Your task to perform on an android device: uninstall "Reddit" Image 0: 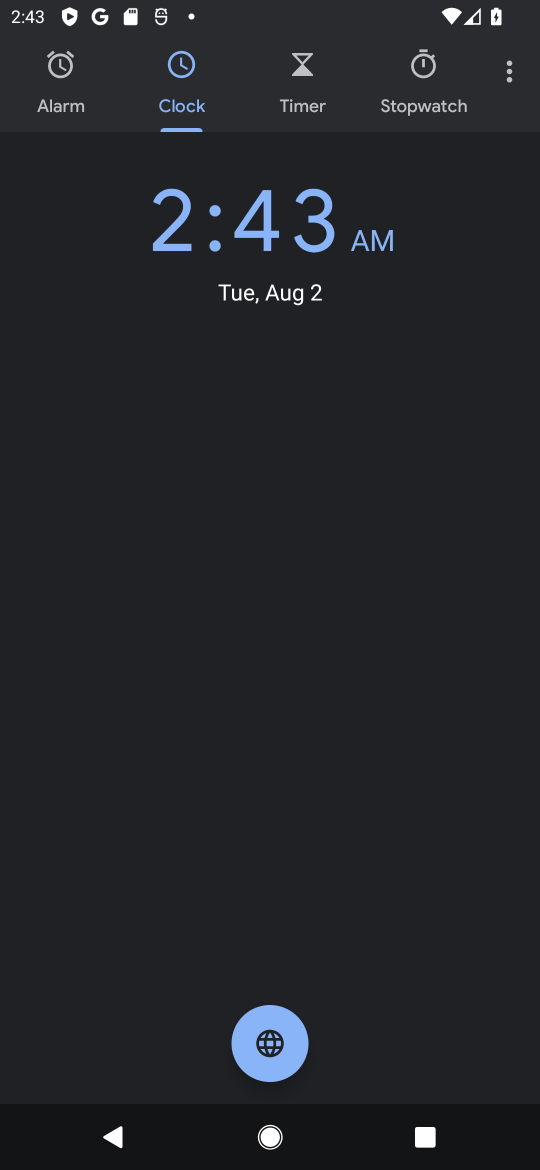
Step 0: press home button
Your task to perform on an android device: uninstall "Reddit" Image 1: 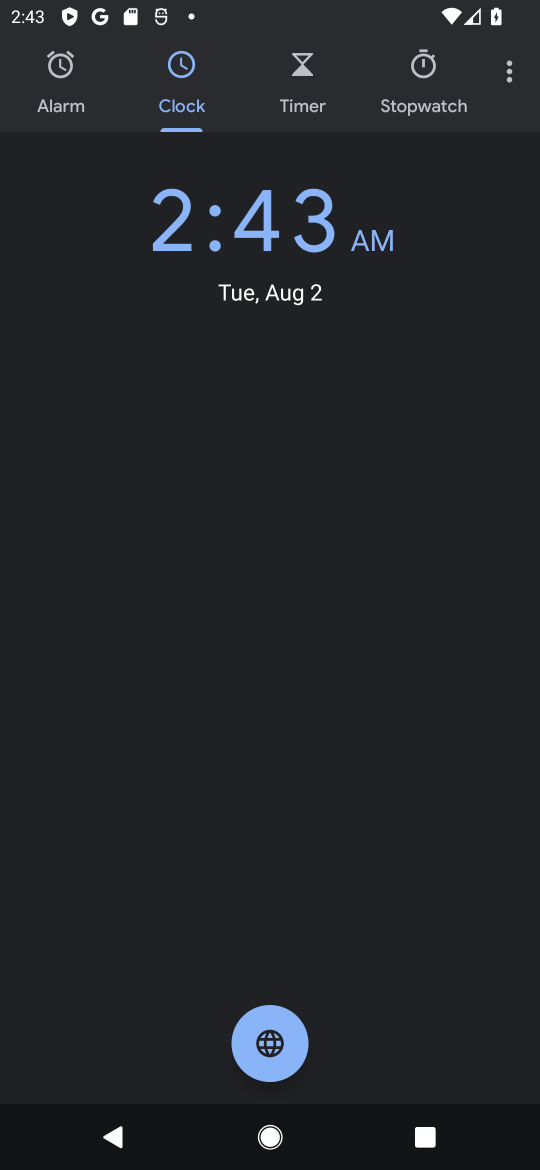
Step 1: press home button
Your task to perform on an android device: uninstall "Reddit" Image 2: 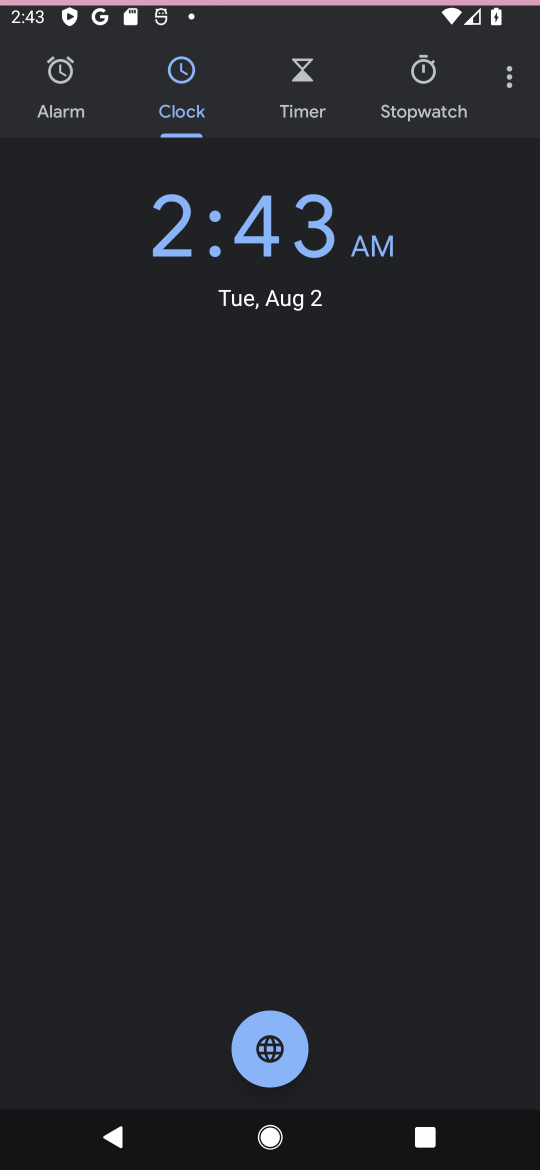
Step 2: drag from (175, 775) to (307, 110)
Your task to perform on an android device: uninstall "Reddit" Image 3: 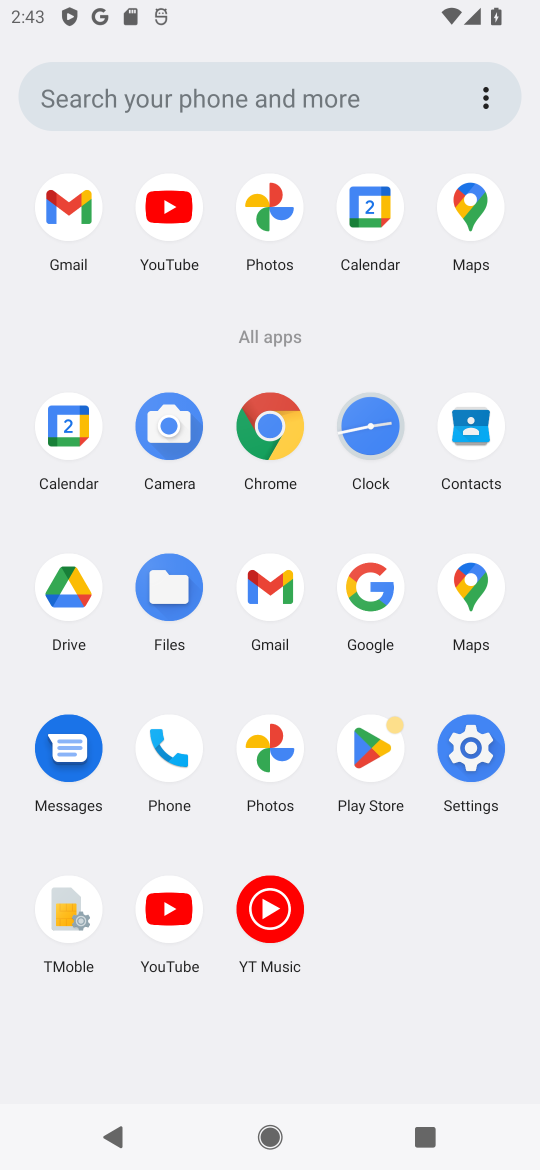
Step 3: click (379, 735)
Your task to perform on an android device: uninstall "Reddit" Image 4: 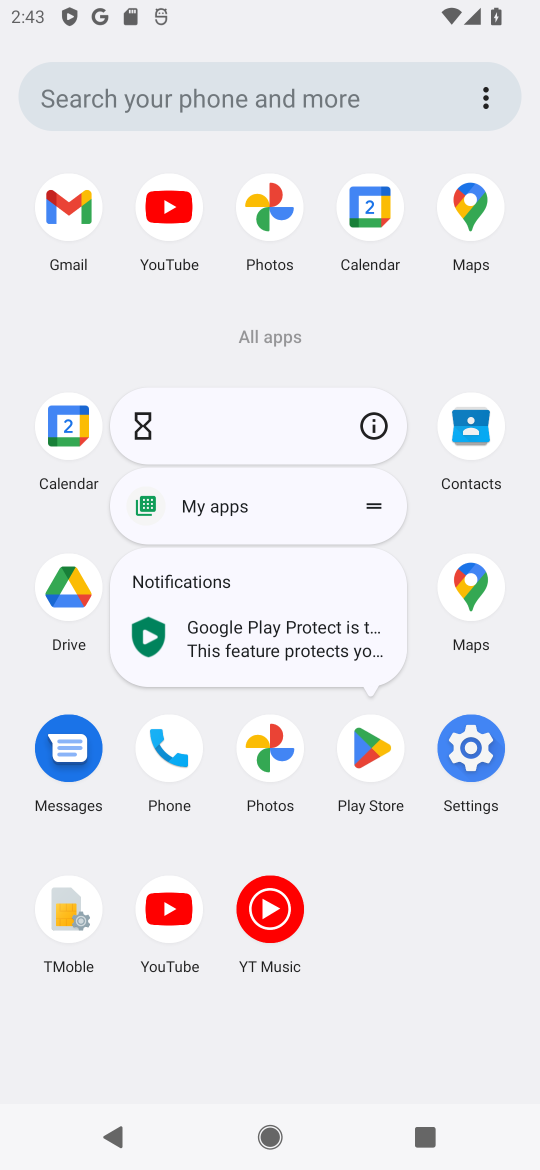
Step 4: click (368, 420)
Your task to perform on an android device: uninstall "Reddit" Image 5: 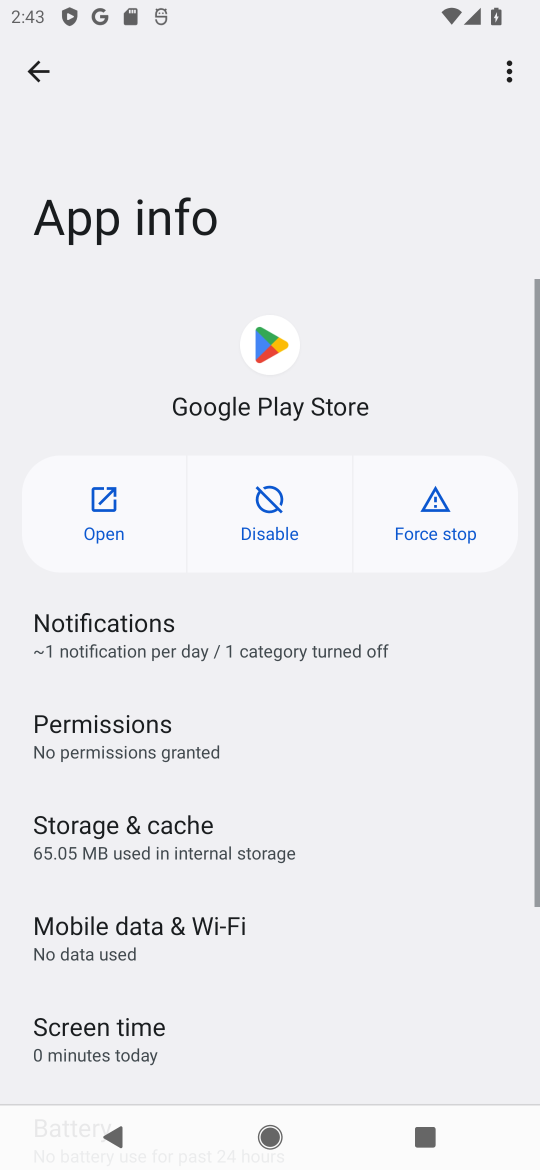
Step 5: click (103, 501)
Your task to perform on an android device: uninstall "Reddit" Image 6: 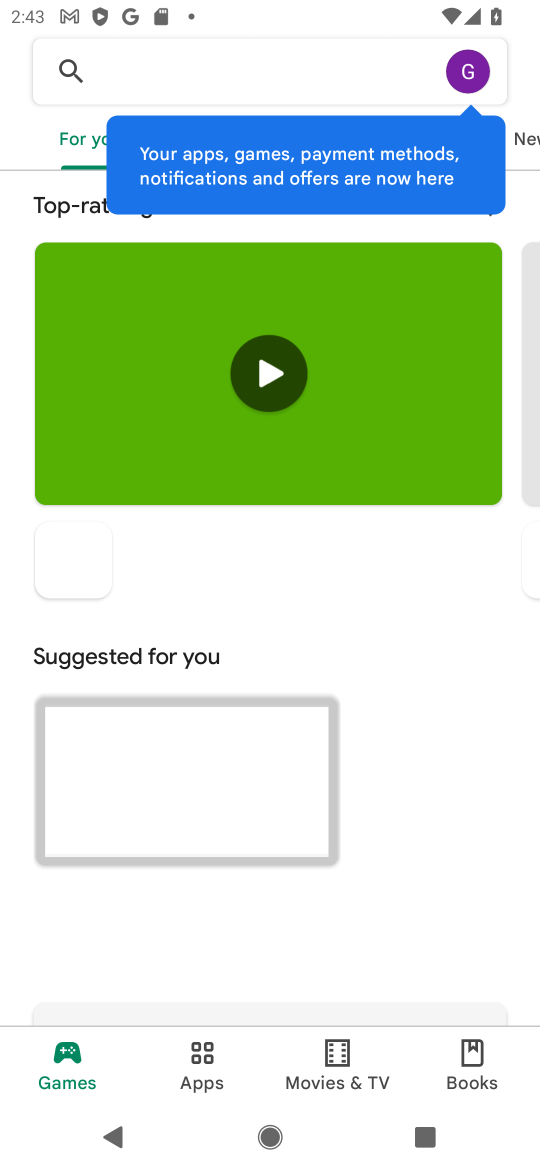
Step 6: click (238, 89)
Your task to perform on an android device: uninstall "Reddit" Image 7: 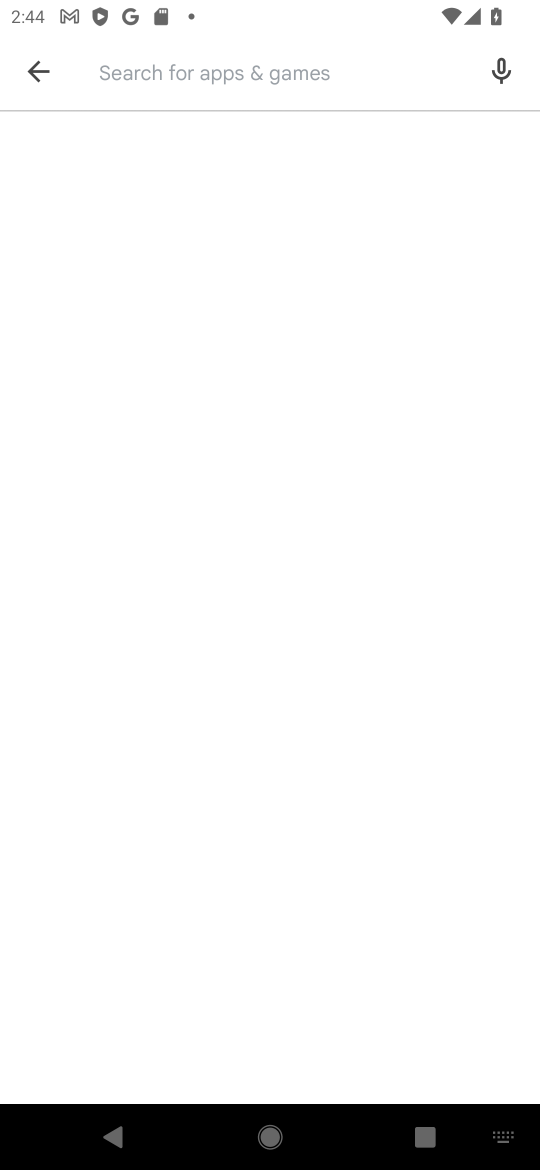
Step 7: type "Reddit"
Your task to perform on an android device: uninstall "Reddit" Image 8: 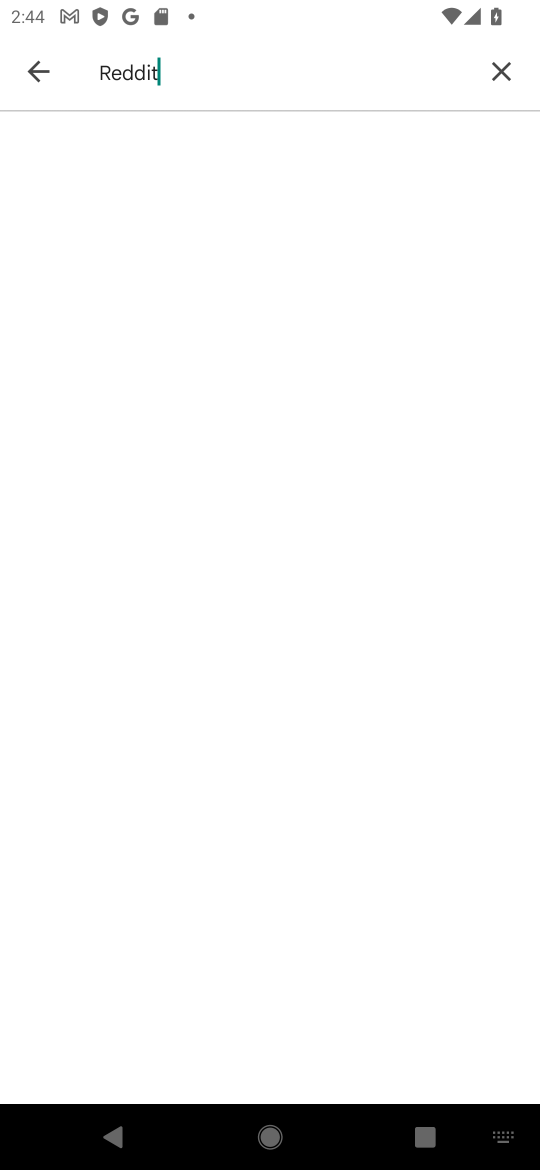
Step 8: type ""
Your task to perform on an android device: uninstall "Reddit" Image 9: 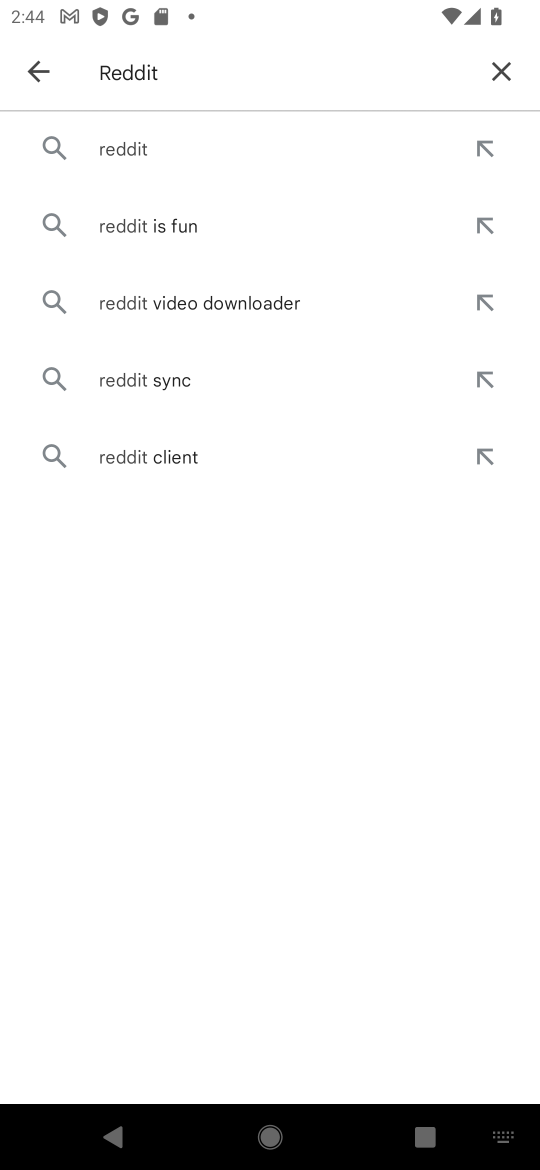
Step 9: click (226, 165)
Your task to perform on an android device: uninstall "Reddit" Image 10: 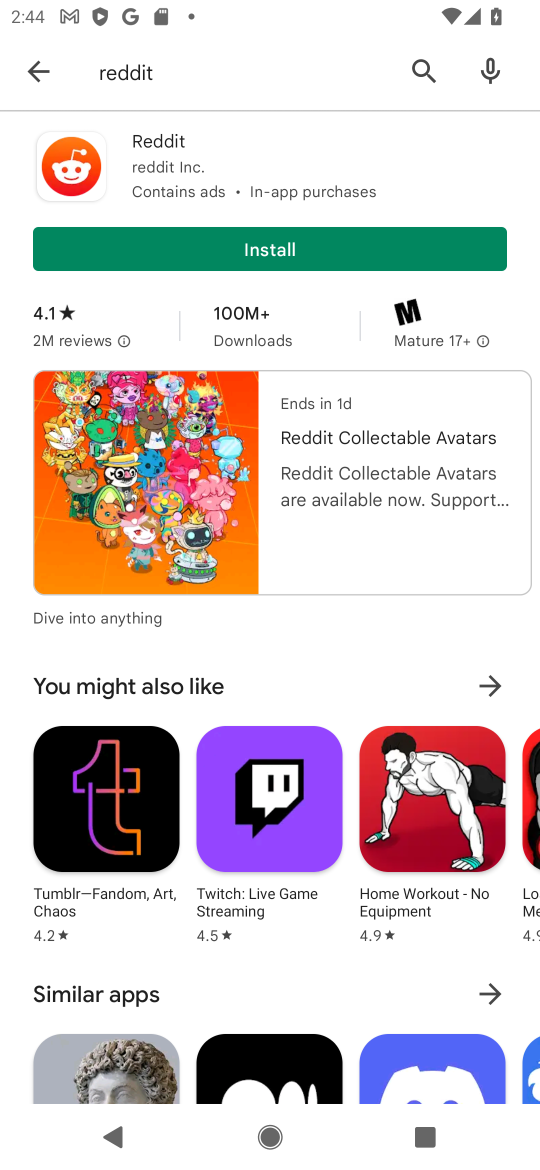
Step 10: task complete